Your task to perform on an android device: What's on my calendar today? Image 0: 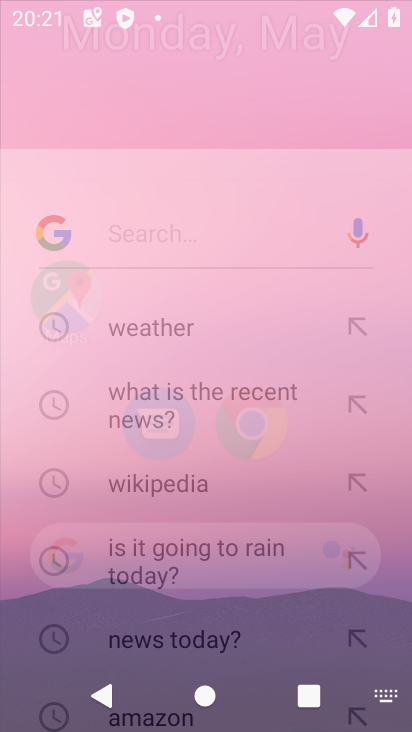
Step 0: drag from (379, 478) to (384, 242)
Your task to perform on an android device: What's on my calendar today? Image 1: 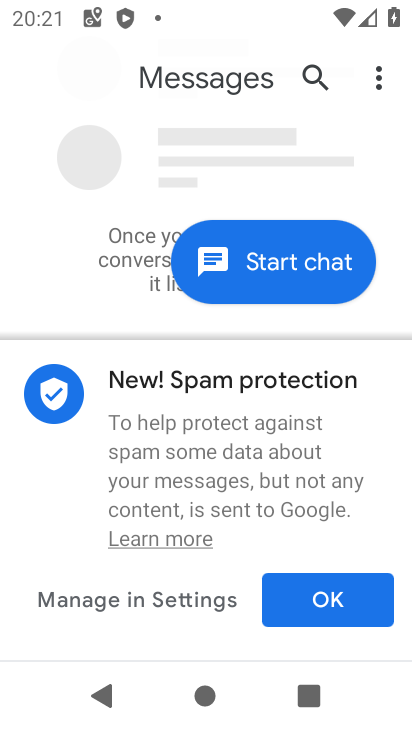
Step 1: press home button
Your task to perform on an android device: What's on my calendar today? Image 2: 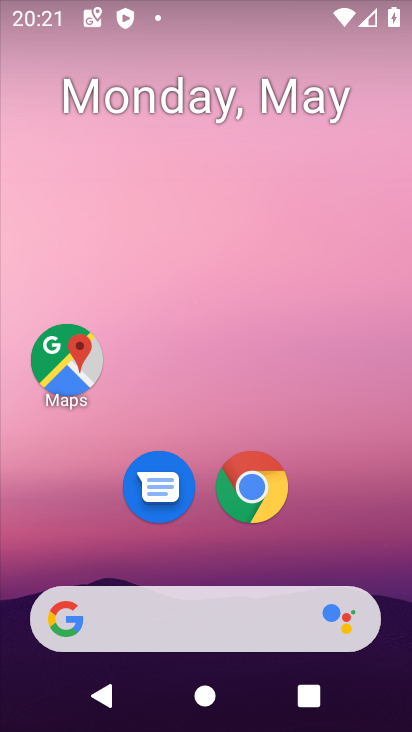
Step 2: drag from (384, 567) to (341, 201)
Your task to perform on an android device: What's on my calendar today? Image 3: 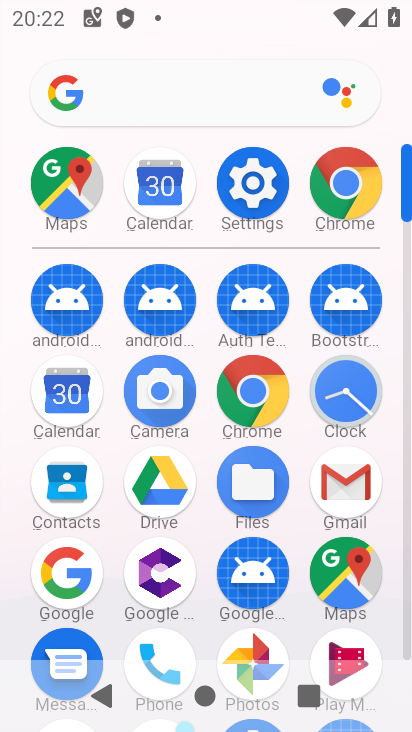
Step 3: click (74, 398)
Your task to perform on an android device: What's on my calendar today? Image 4: 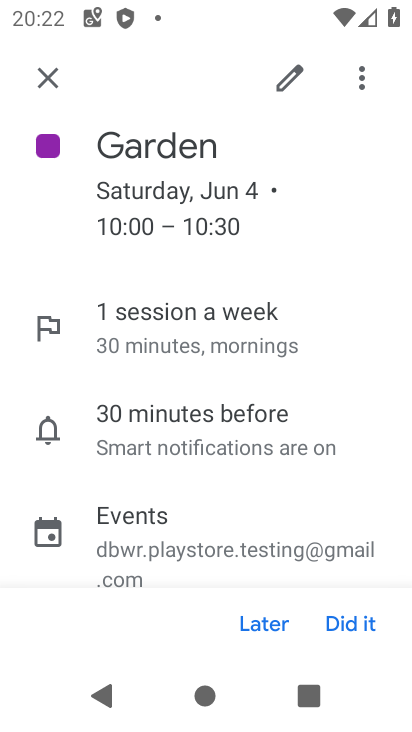
Step 4: click (49, 83)
Your task to perform on an android device: What's on my calendar today? Image 5: 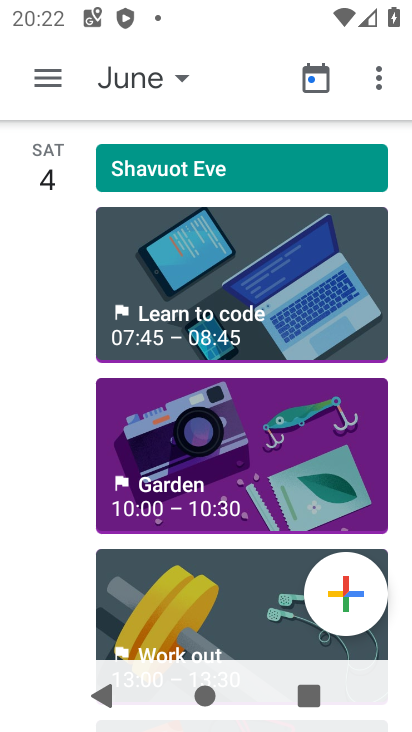
Step 5: click (182, 76)
Your task to perform on an android device: What's on my calendar today? Image 6: 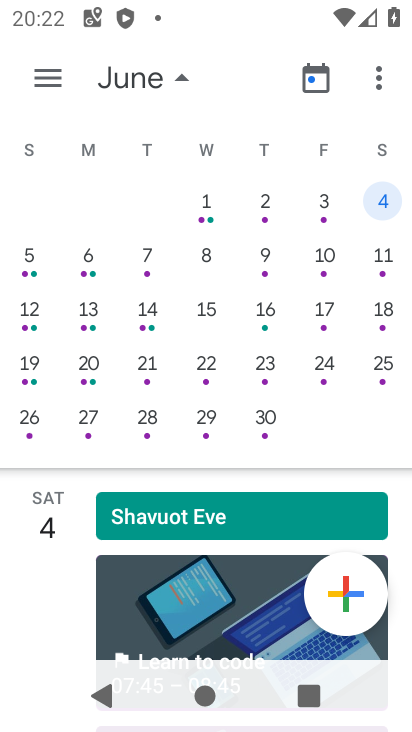
Step 6: drag from (36, 174) to (406, 304)
Your task to perform on an android device: What's on my calendar today? Image 7: 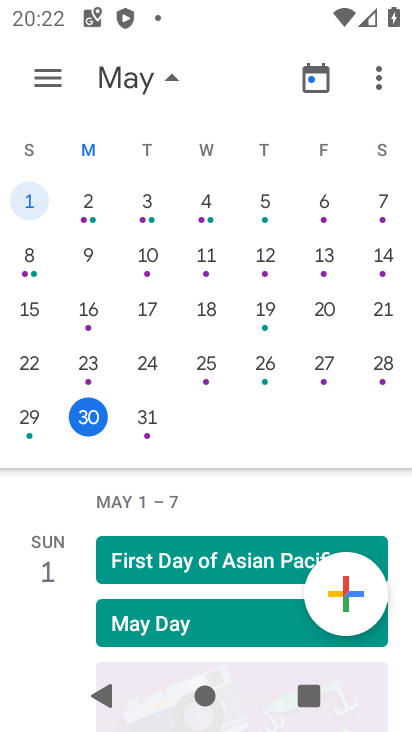
Step 7: click (149, 417)
Your task to perform on an android device: What's on my calendar today? Image 8: 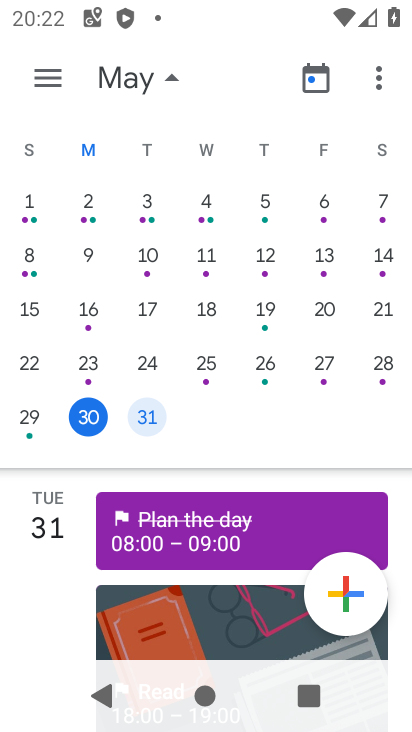
Step 8: task complete